Your task to perform on an android device: Open calendar and show me the first week of next month Image 0: 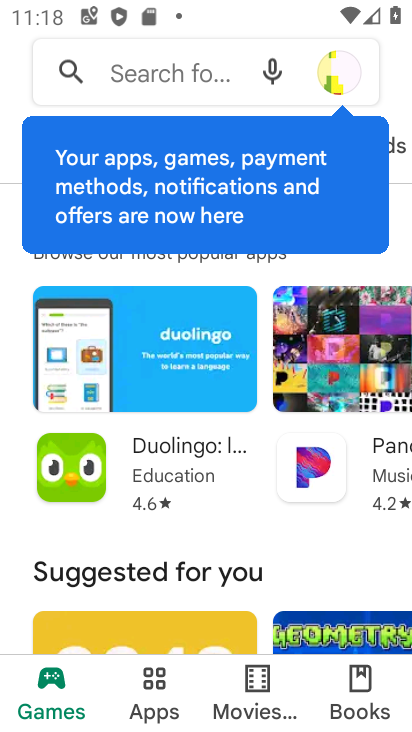
Step 0: press home button
Your task to perform on an android device: Open calendar and show me the first week of next month Image 1: 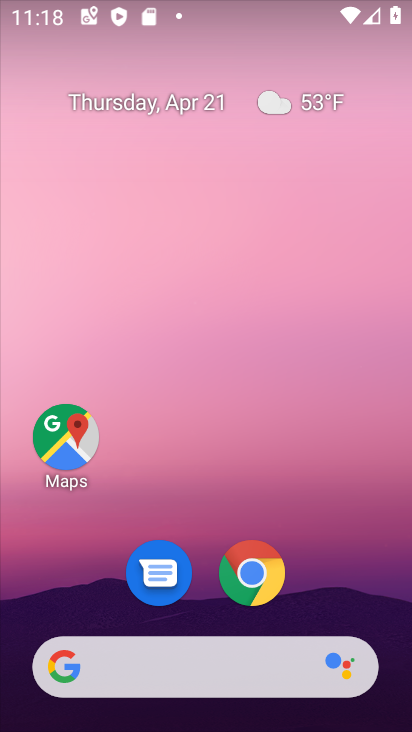
Step 1: drag from (325, 515) to (341, 81)
Your task to perform on an android device: Open calendar and show me the first week of next month Image 2: 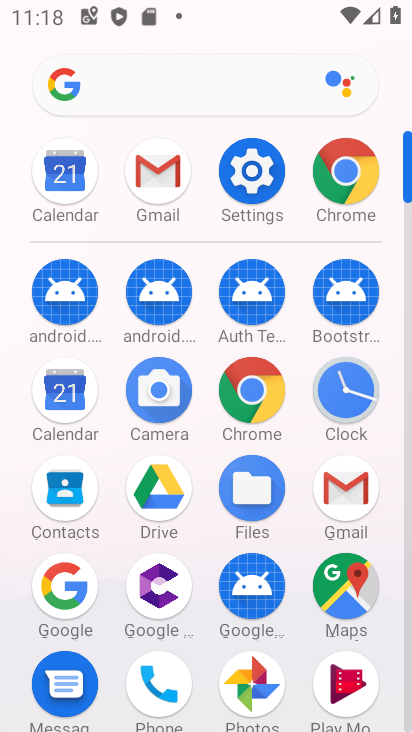
Step 2: click (53, 388)
Your task to perform on an android device: Open calendar and show me the first week of next month Image 3: 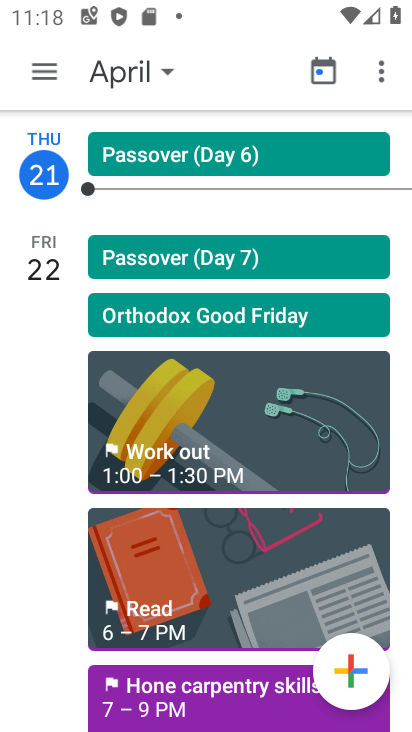
Step 3: click (165, 68)
Your task to perform on an android device: Open calendar and show me the first week of next month Image 4: 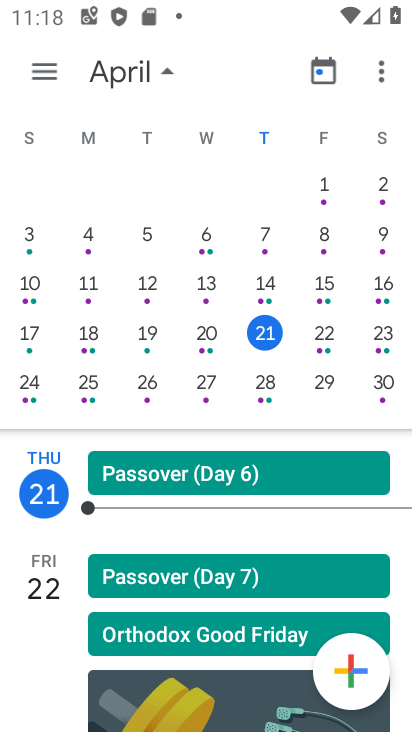
Step 4: drag from (404, 195) to (18, 197)
Your task to perform on an android device: Open calendar and show me the first week of next month Image 5: 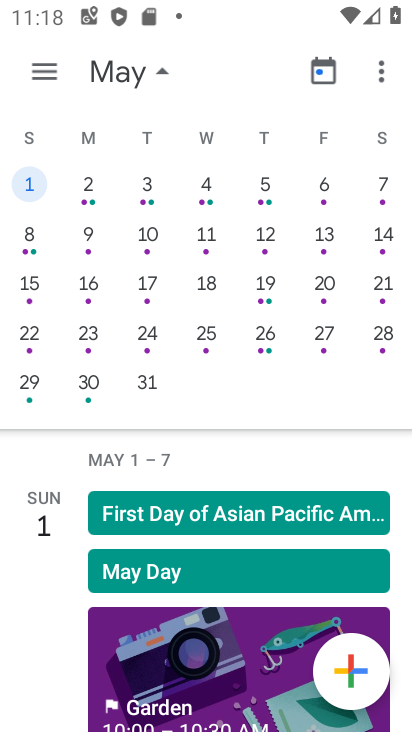
Step 5: click (322, 183)
Your task to perform on an android device: Open calendar and show me the first week of next month Image 6: 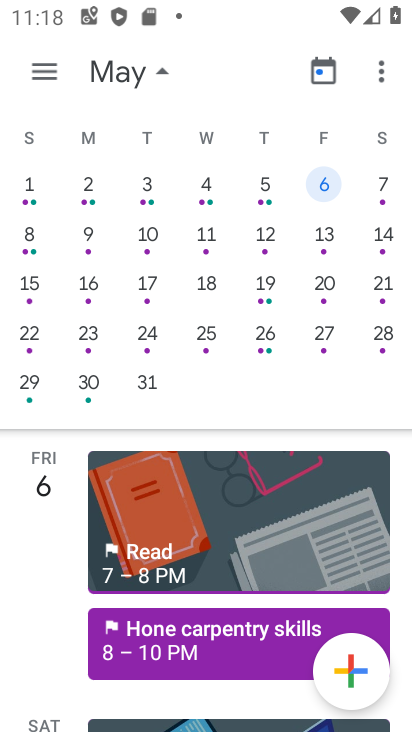
Step 6: task complete